Your task to perform on an android device: Go to Maps Image 0: 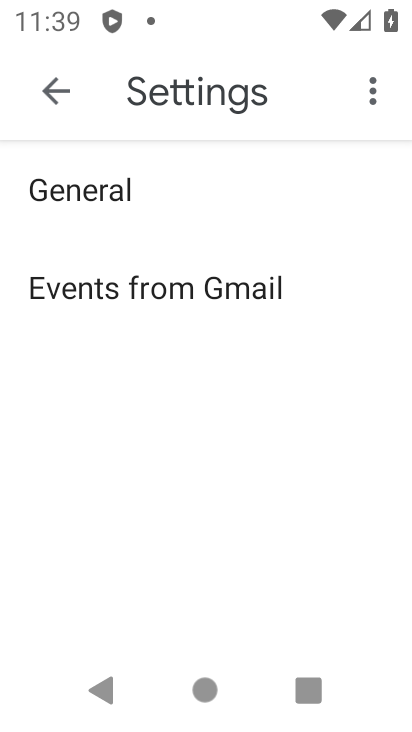
Step 0: click (49, 94)
Your task to perform on an android device: Go to Maps Image 1: 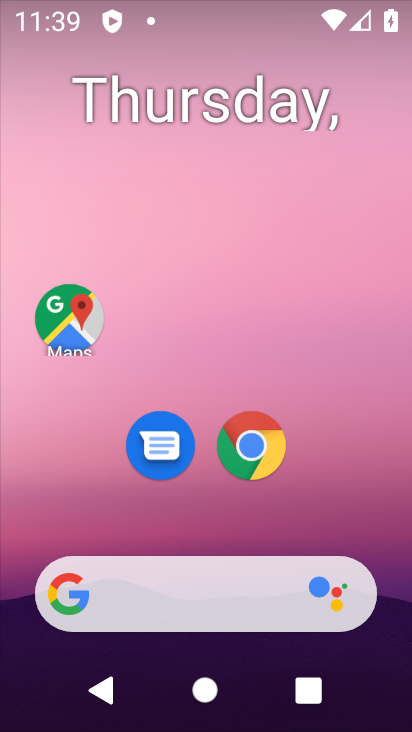
Step 1: drag from (259, 444) to (144, 89)
Your task to perform on an android device: Go to Maps Image 2: 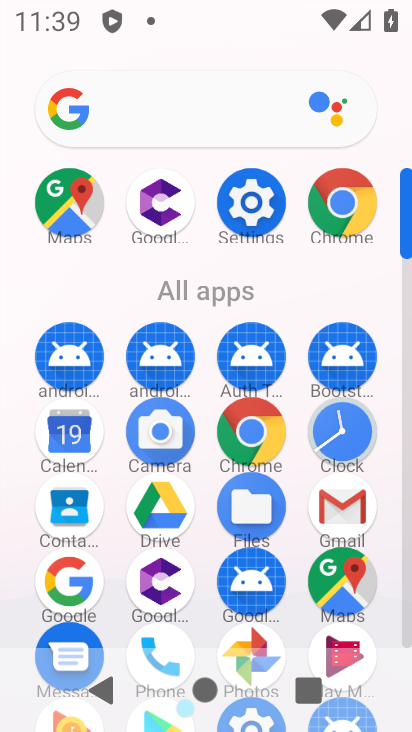
Step 2: click (53, 198)
Your task to perform on an android device: Go to Maps Image 3: 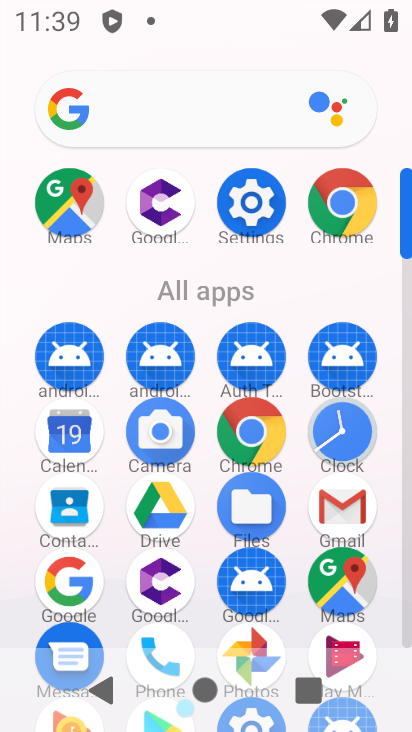
Step 3: click (54, 198)
Your task to perform on an android device: Go to Maps Image 4: 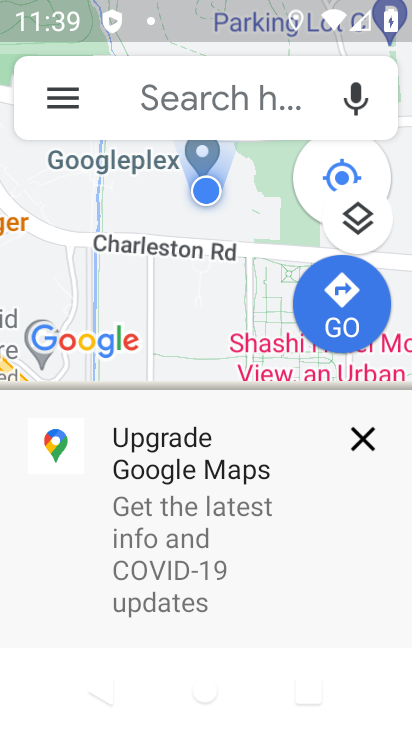
Step 4: task complete